Your task to perform on an android device: change notification settings in the gmail app Image 0: 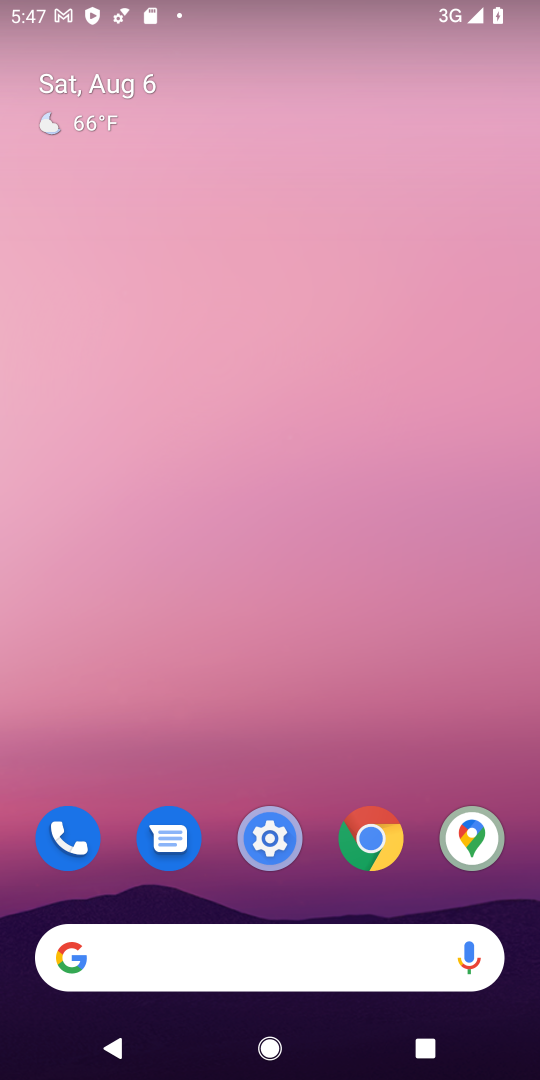
Step 0: drag from (243, 723) to (289, 10)
Your task to perform on an android device: change notification settings in the gmail app Image 1: 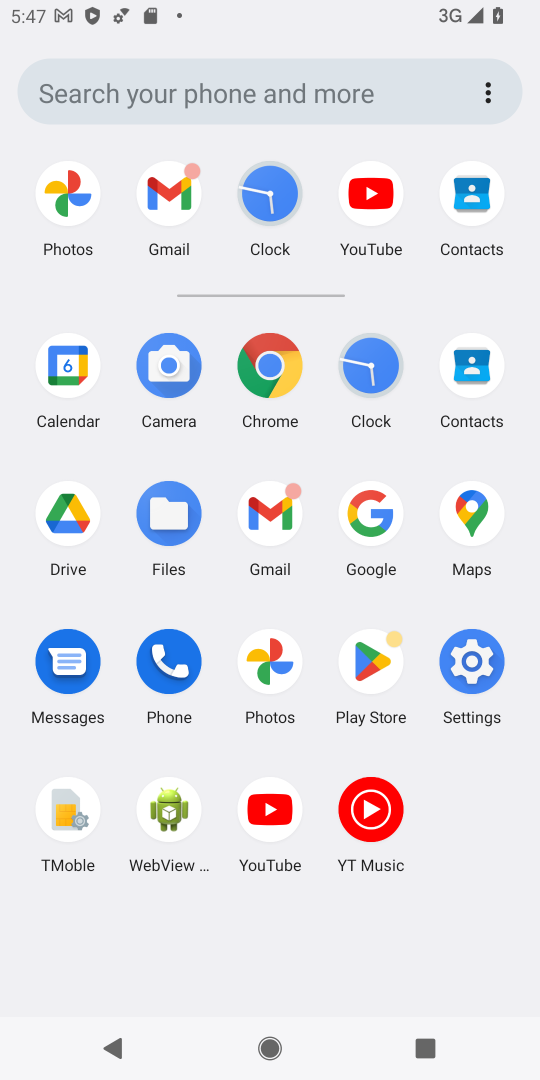
Step 1: click (282, 502)
Your task to perform on an android device: change notification settings in the gmail app Image 2: 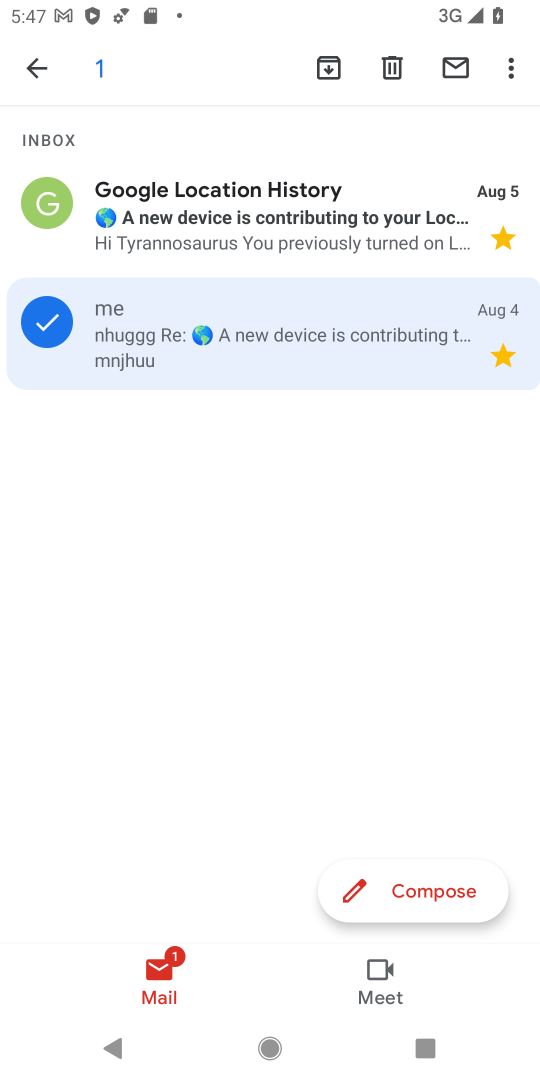
Step 2: press back button
Your task to perform on an android device: change notification settings in the gmail app Image 3: 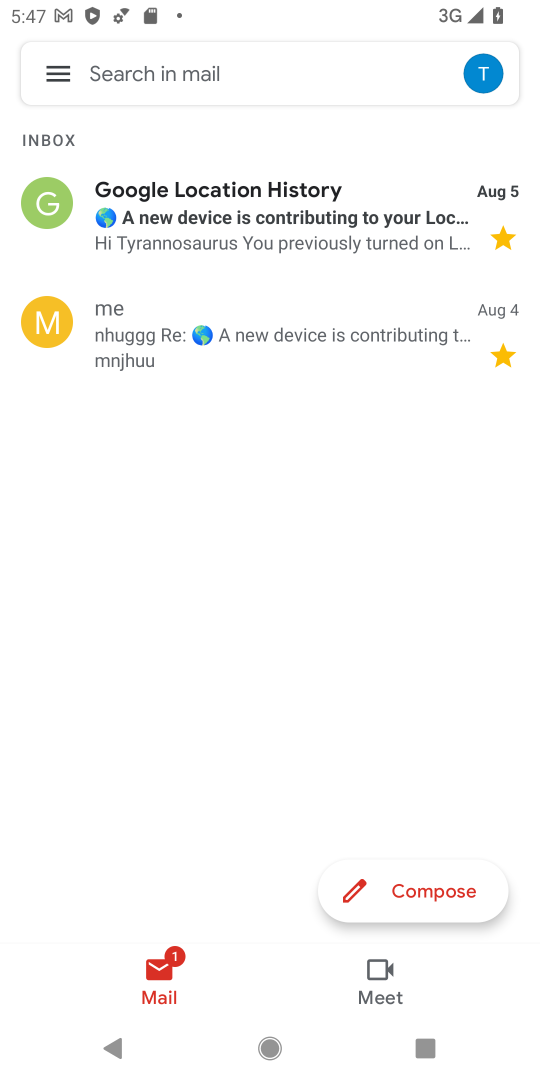
Step 3: click (43, 87)
Your task to perform on an android device: change notification settings in the gmail app Image 4: 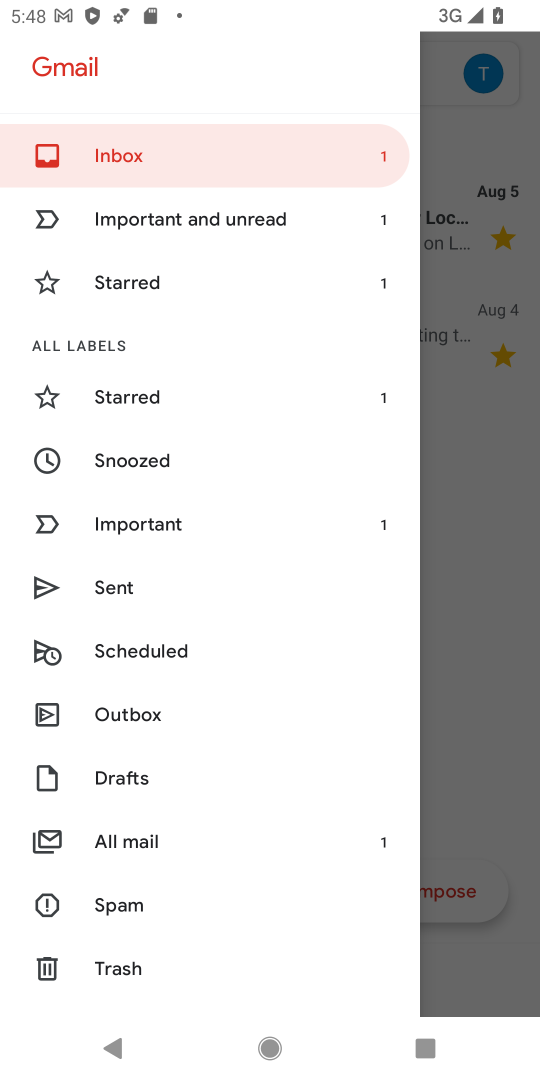
Step 4: drag from (119, 908) to (162, 44)
Your task to perform on an android device: change notification settings in the gmail app Image 5: 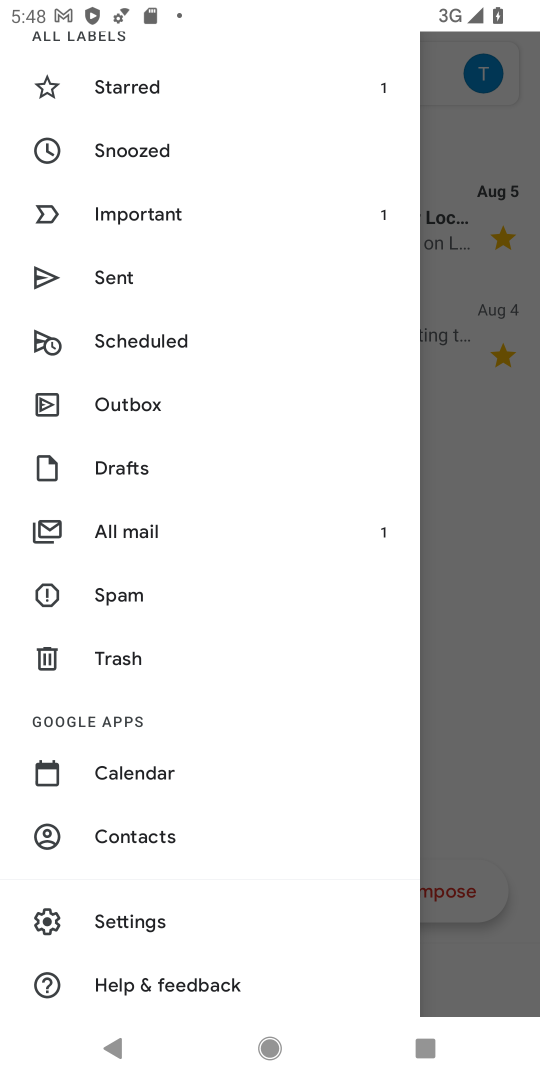
Step 5: click (150, 919)
Your task to perform on an android device: change notification settings in the gmail app Image 6: 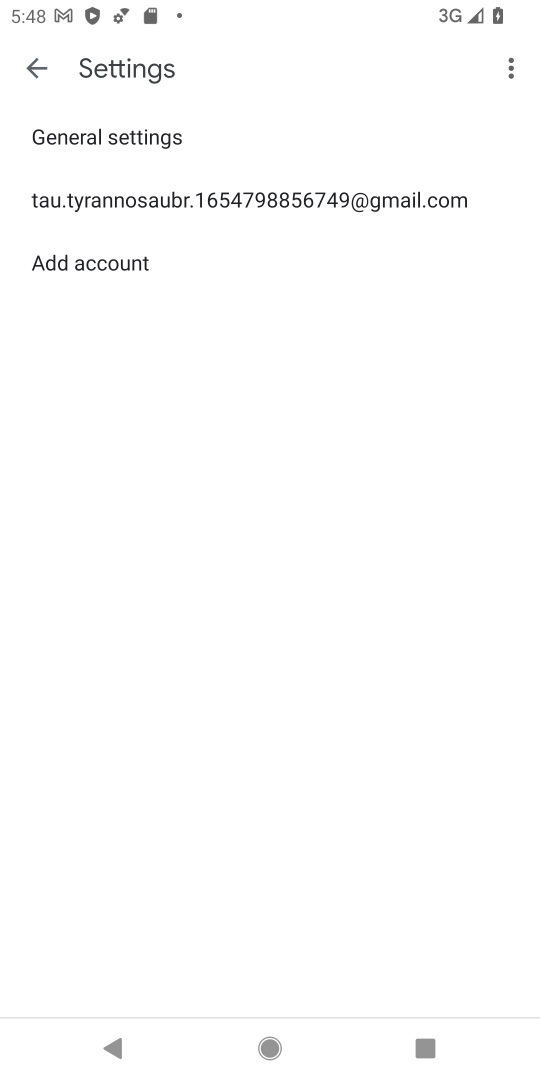
Step 6: click (183, 201)
Your task to perform on an android device: change notification settings in the gmail app Image 7: 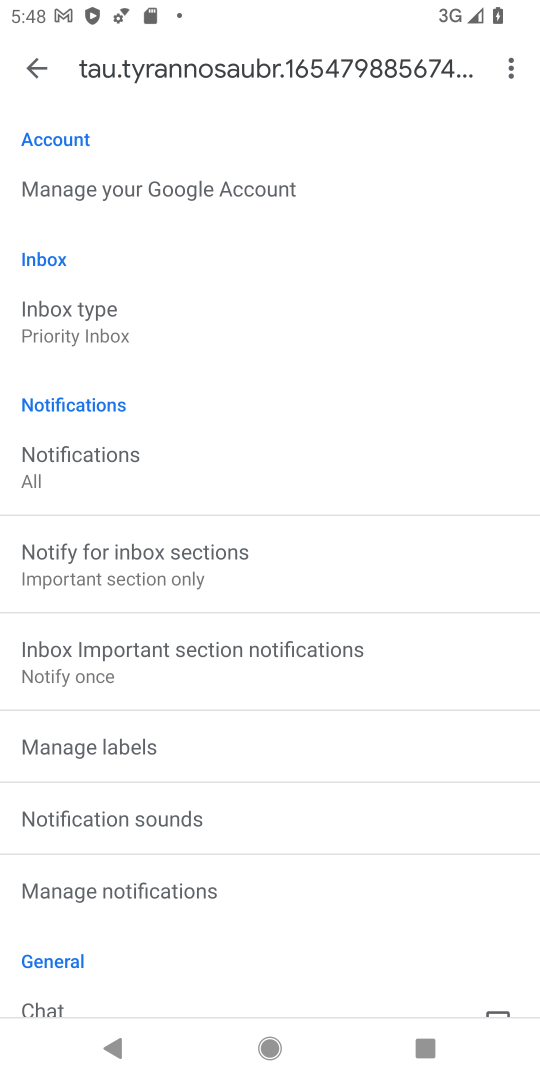
Step 7: click (181, 883)
Your task to perform on an android device: change notification settings in the gmail app Image 8: 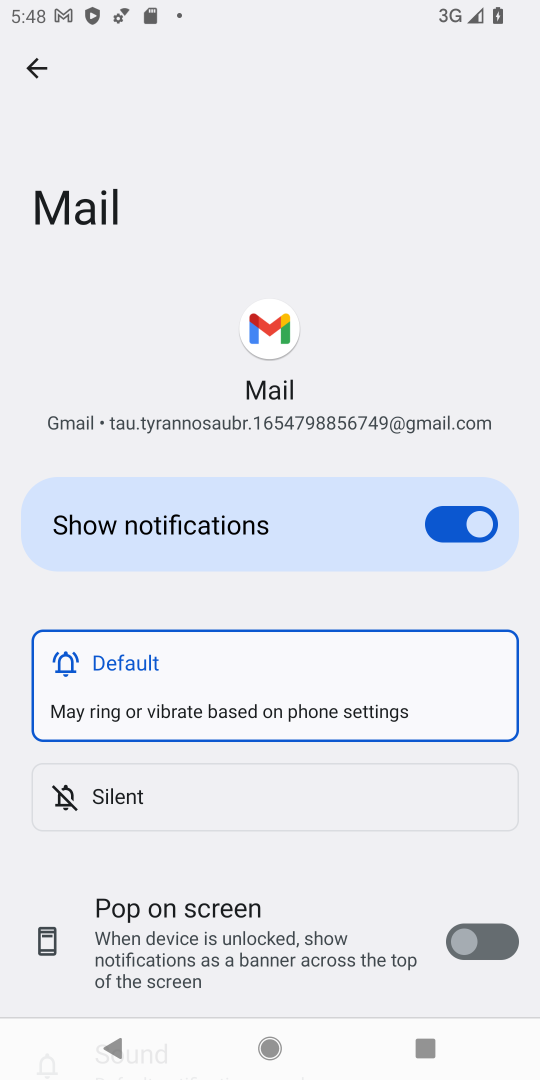
Step 8: click (456, 528)
Your task to perform on an android device: change notification settings in the gmail app Image 9: 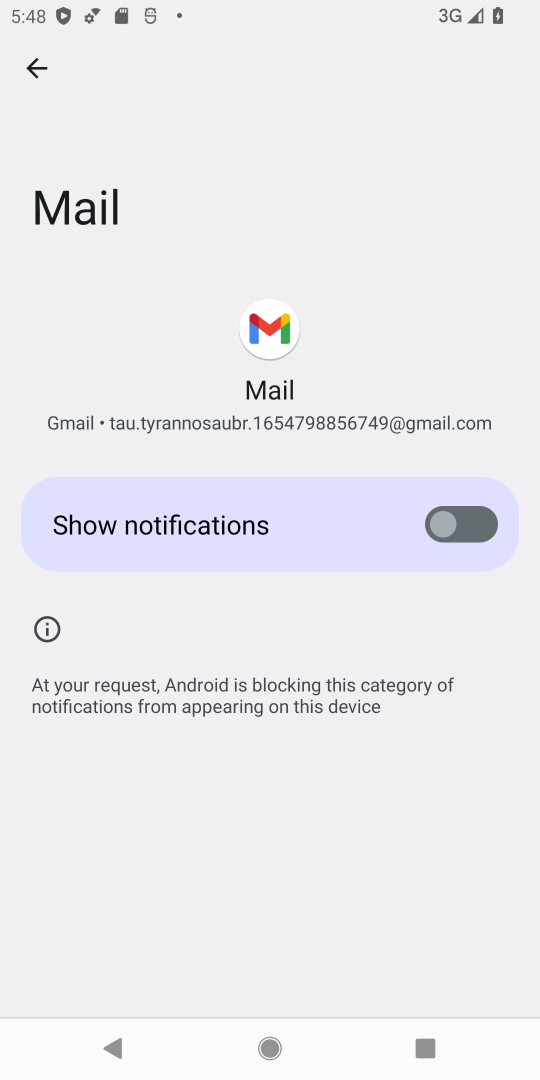
Step 9: task complete